Your task to perform on an android device: Search for sushi restaurants on Maps Image 0: 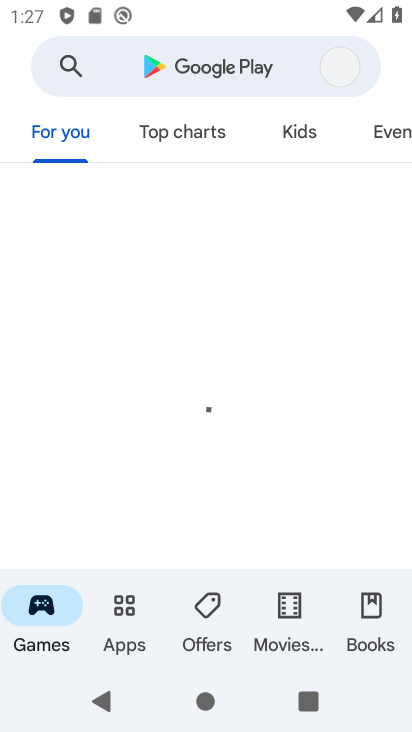
Step 0: press home button
Your task to perform on an android device: Search for sushi restaurants on Maps Image 1: 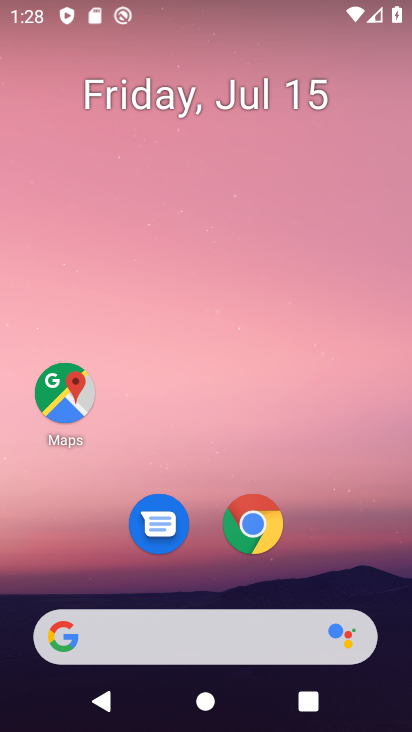
Step 1: click (67, 397)
Your task to perform on an android device: Search for sushi restaurants on Maps Image 2: 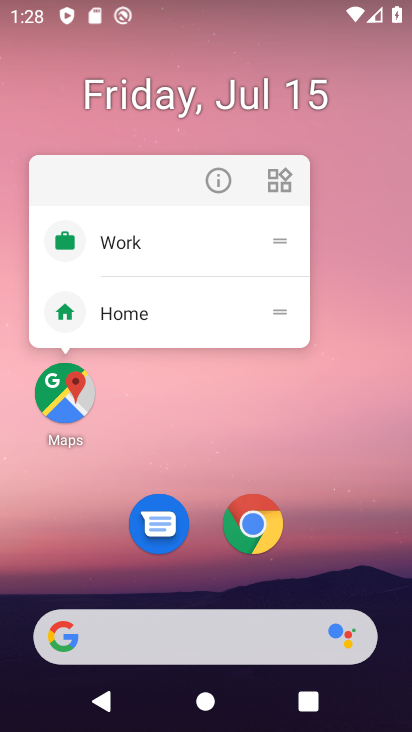
Step 2: click (66, 398)
Your task to perform on an android device: Search for sushi restaurants on Maps Image 3: 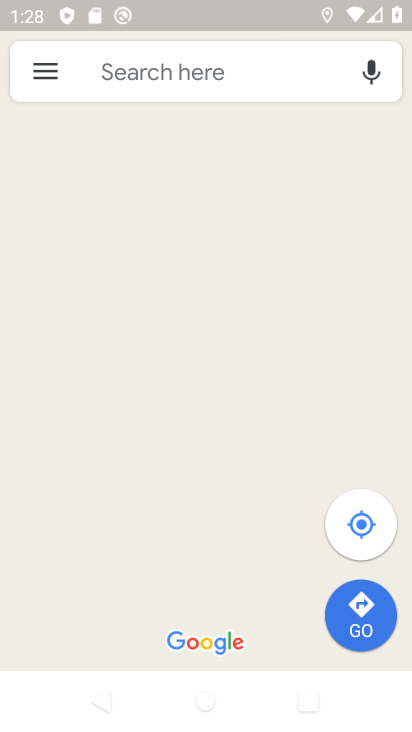
Step 3: click (165, 73)
Your task to perform on an android device: Search for sushi restaurants on Maps Image 4: 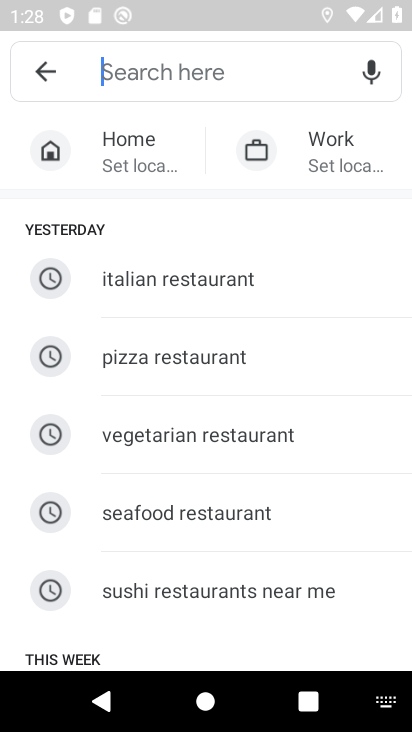
Step 4: click (170, 589)
Your task to perform on an android device: Search for sushi restaurants on Maps Image 5: 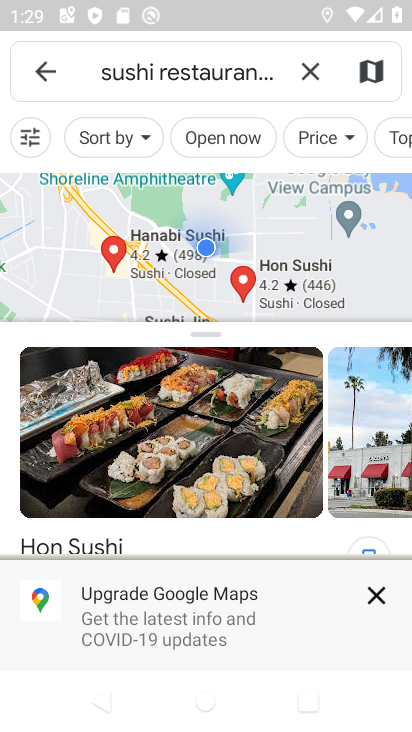
Step 5: click (372, 595)
Your task to perform on an android device: Search for sushi restaurants on Maps Image 6: 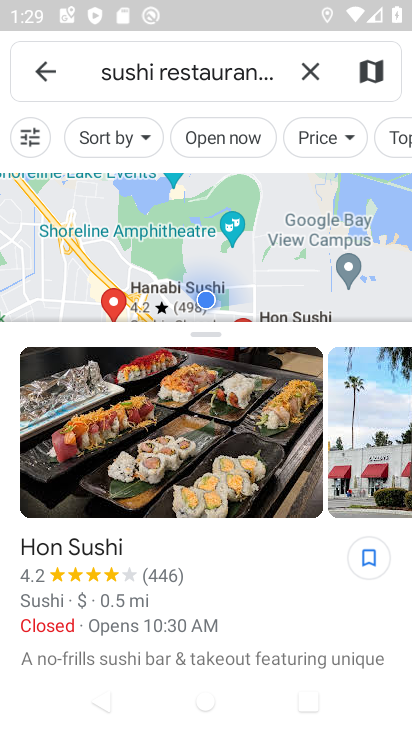
Step 6: task complete